Your task to perform on an android device: Open Reddit.com Image 0: 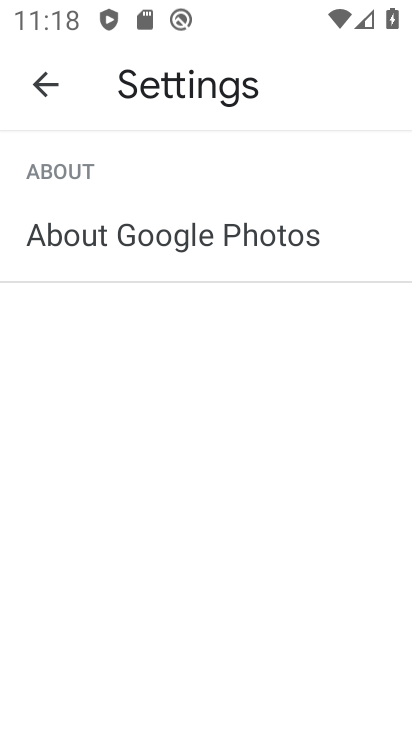
Step 0: press home button
Your task to perform on an android device: Open Reddit.com Image 1: 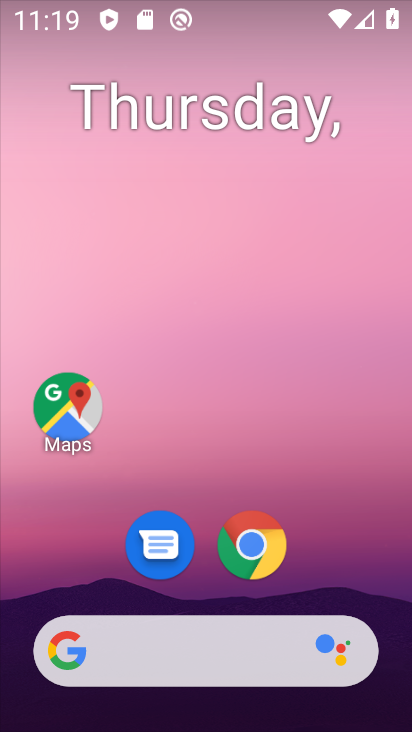
Step 1: drag from (151, 601) to (177, 184)
Your task to perform on an android device: Open Reddit.com Image 2: 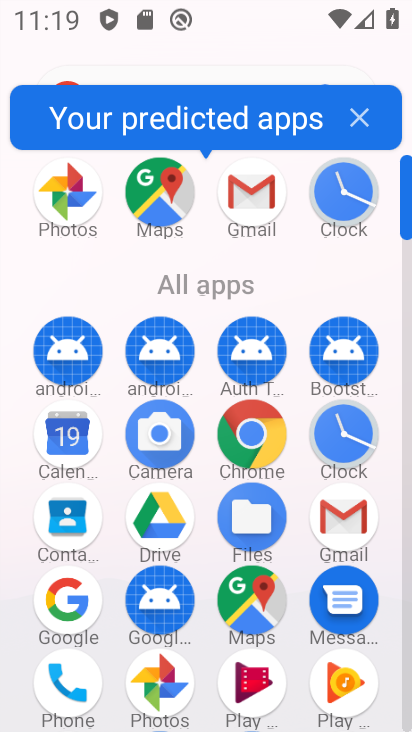
Step 2: click (72, 603)
Your task to perform on an android device: Open Reddit.com Image 3: 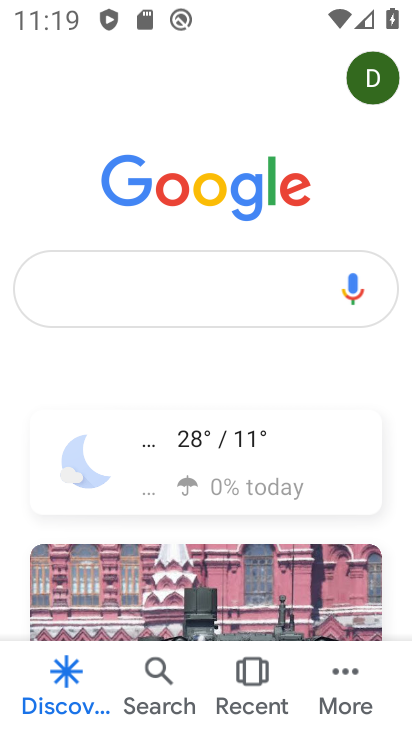
Step 3: click (112, 291)
Your task to perform on an android device: Open Reddit.com Image 4: 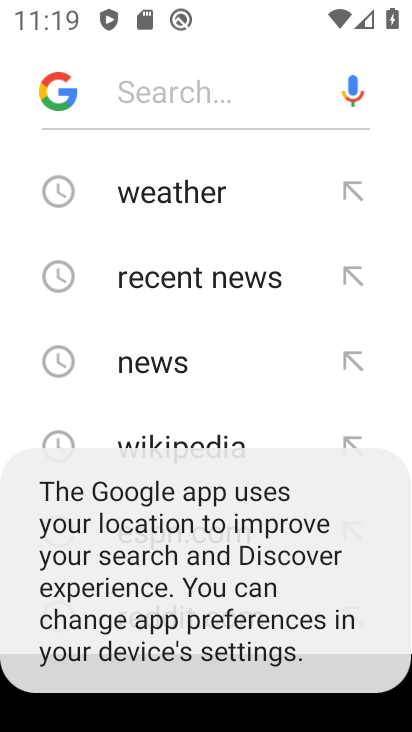
Step 4: drag from (130, 422) to (154, 135)
Your task to perform on an android device: Open Reddit.com Image 5: 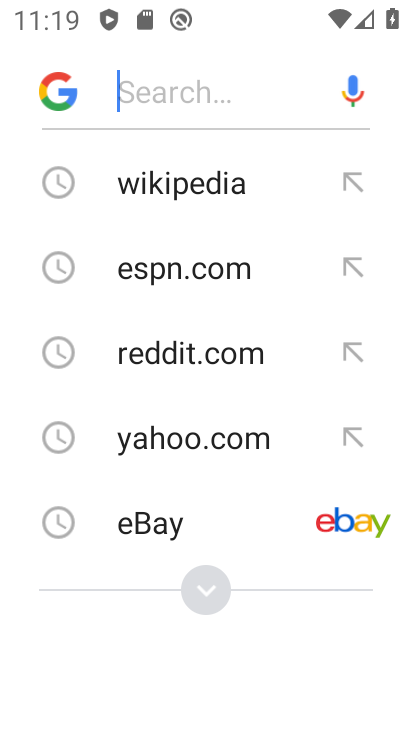
Step 5: drag from (183, 455) to (185, 243)
Your task to perform on an android device: Open Reddit.com Image 6: 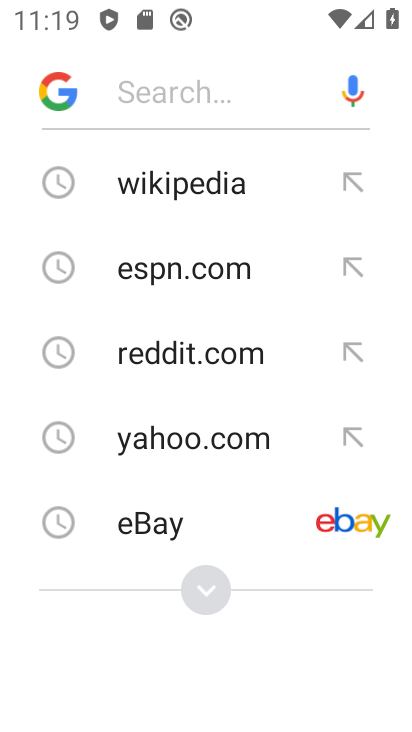
Step 6: click (194, 348)
Your task to perform on an android device: Open Reddit.com Image 7: 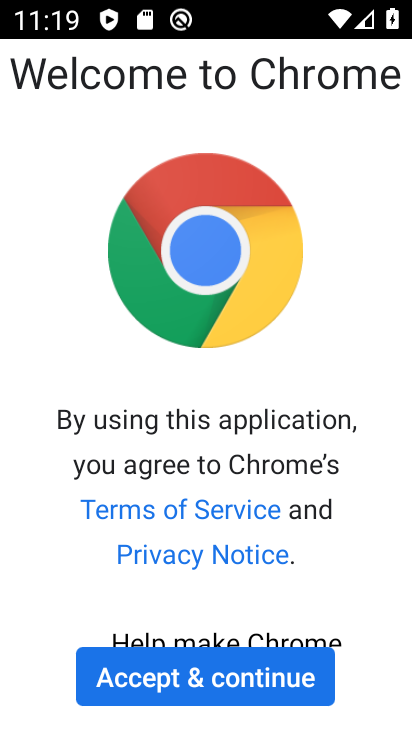
Step 7: click (199, 679)
Your task to perform on an android device: Open Reddit.com Image 8: 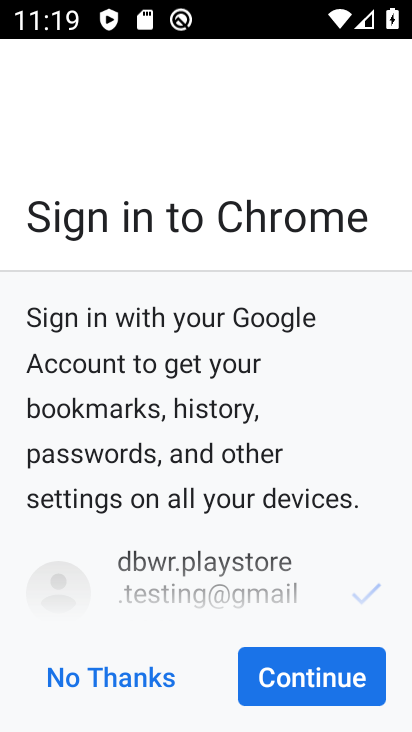
Step 8: click (300, 678)
Your task to perform on an android device: Open Reddit.com Image 9: 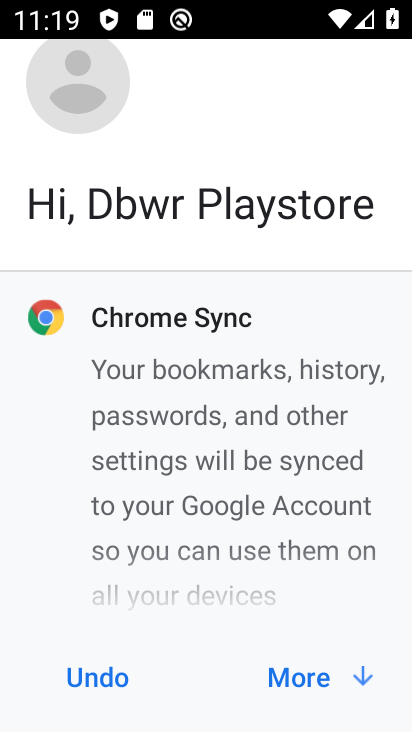
Step 9: click (299, 677)
Your task to perform on an android device: Open Reddit.com Image 10: 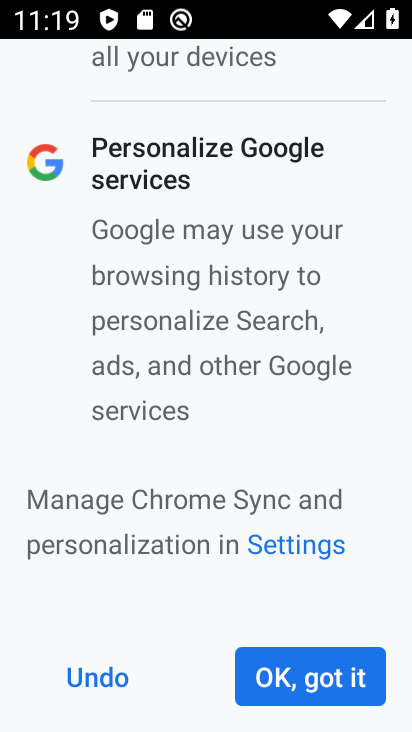
Step 10: click (299, 677)
Your task to perform on an android device: Open Reddit.com Image 11: 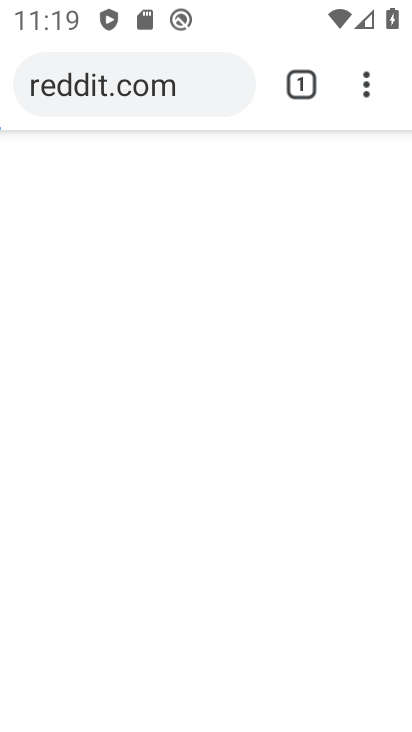
Step 11: click (299, 677)
Your task to perform on an android device: Open Reddit.com Image 12: 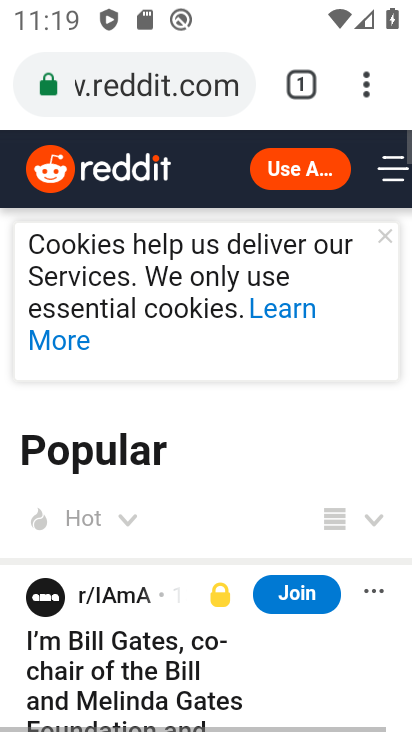
Step 12: task complete